Your task to perform on an android device: Open Google Image 0: 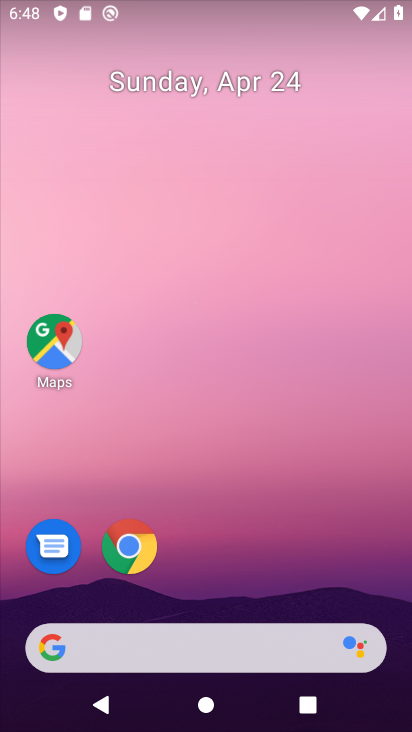
Step 0: click (132, 639)
Your task to perform on an android device: Open Google Image 1: 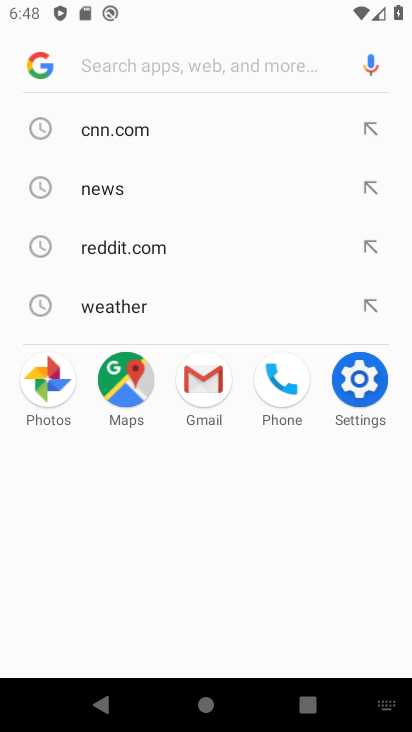
Step 1: task complete